Your task to perform on an android device: empty trash in google photos Image 0: 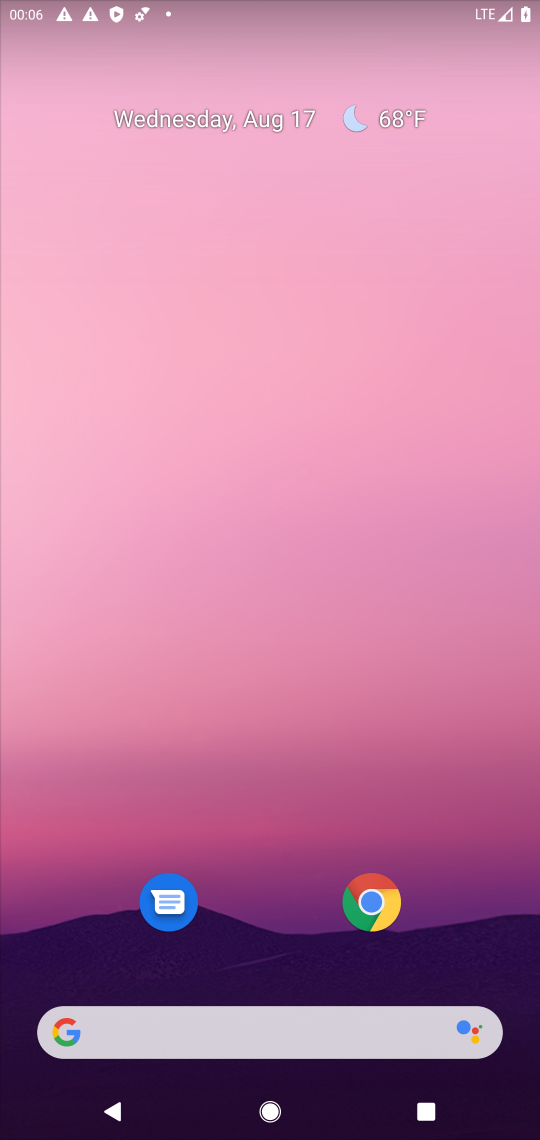
Step 0: drag from (252, 920) to (400, 44)
Your task to perform on an android device: empty trash in google photos Image 1: 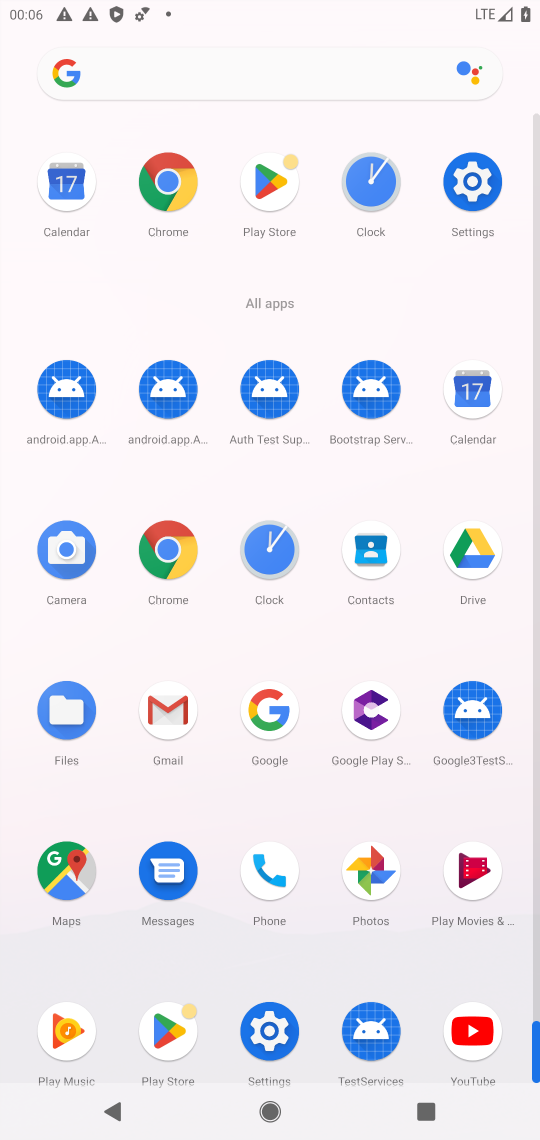
Step 1: click (375, 900)
Your task to perform on an android device: empty trash in google photos Image 2: 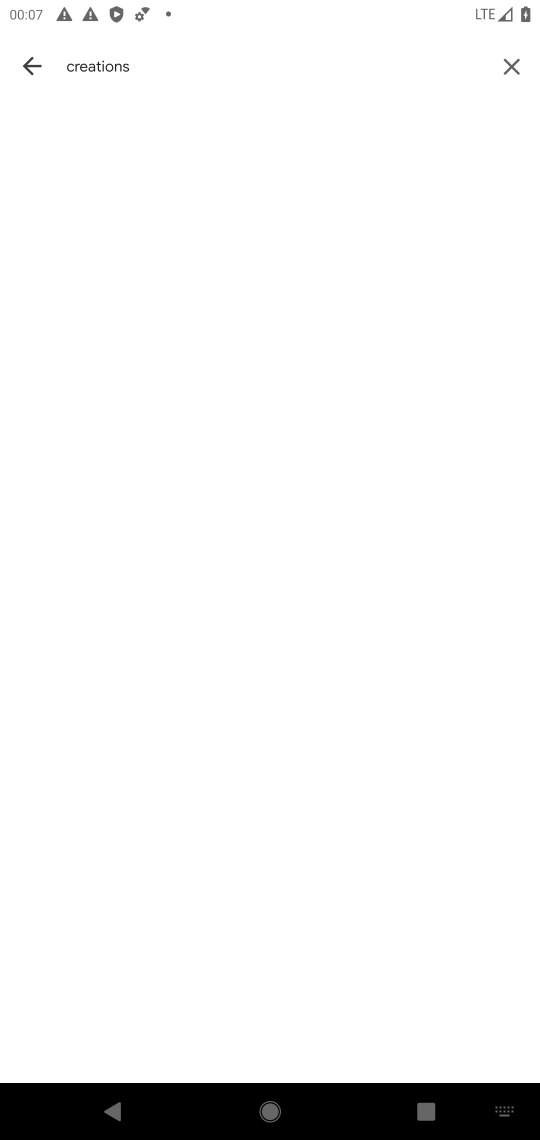
Step 2: click (36, 56)
Your task to perform on an android device: empty trash in google photos Image 3: 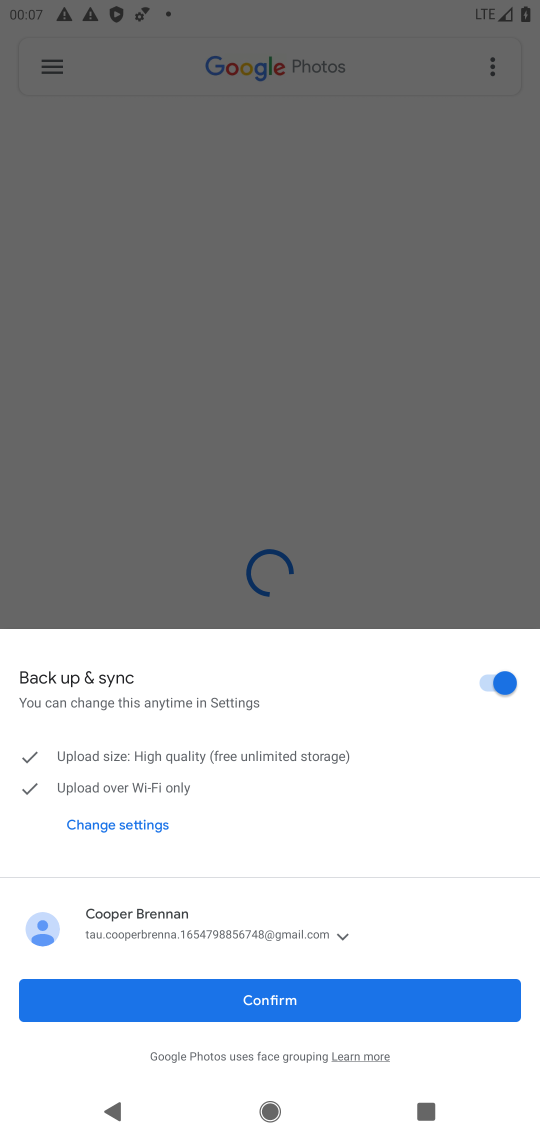
Step 3: click (226, 1005)
Your task to perform on an android device: empty trash in google photos Image 4: 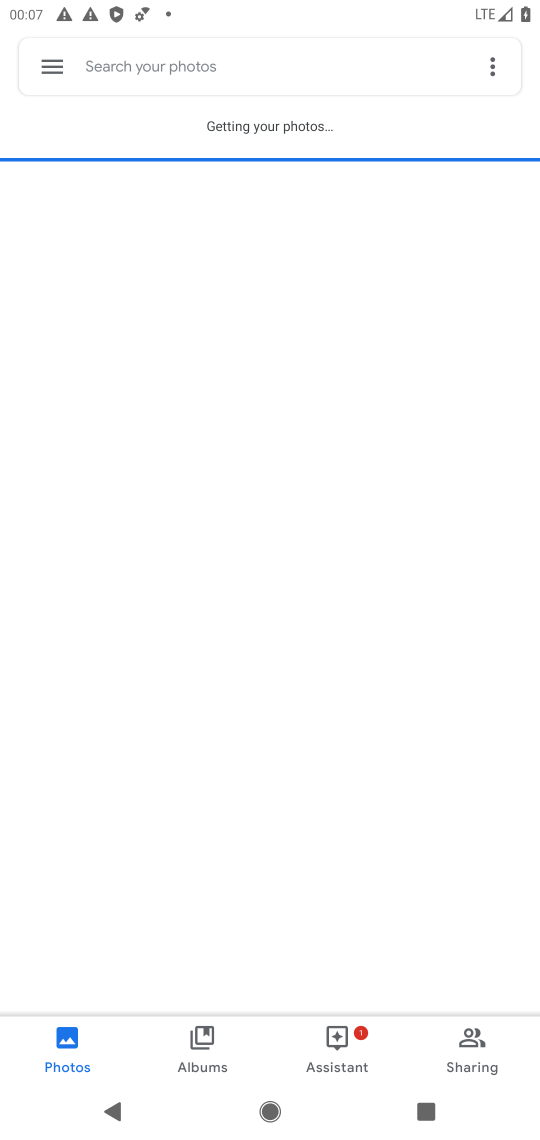
Step 4: click (57, 59)
Your task to perform on an android device: empty trash in google photos Image 5: 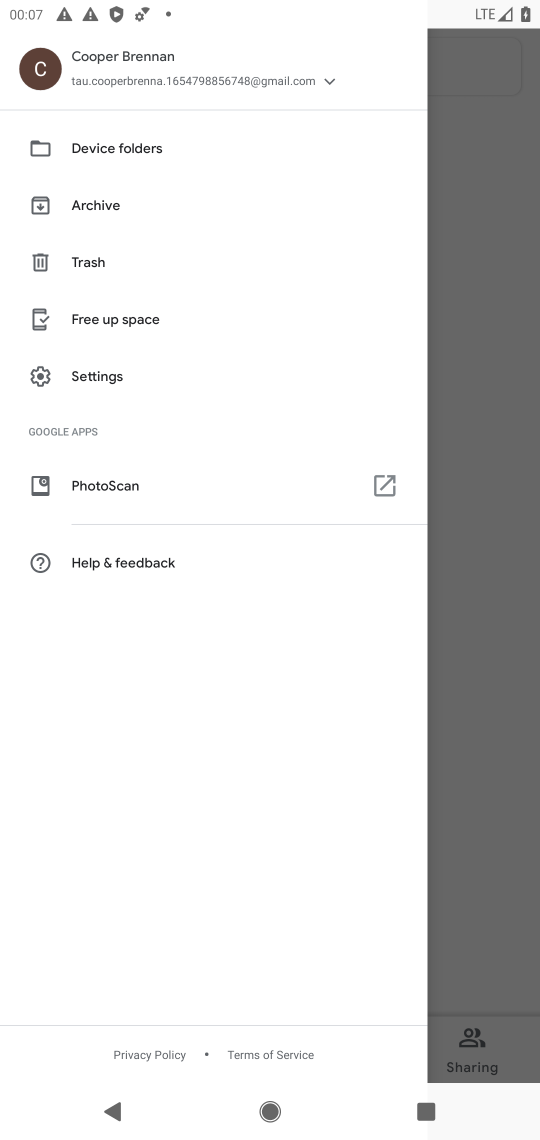
Step 5: click (97, 257)
Your task to perform on an android device: empty trash in google photos Image 6: 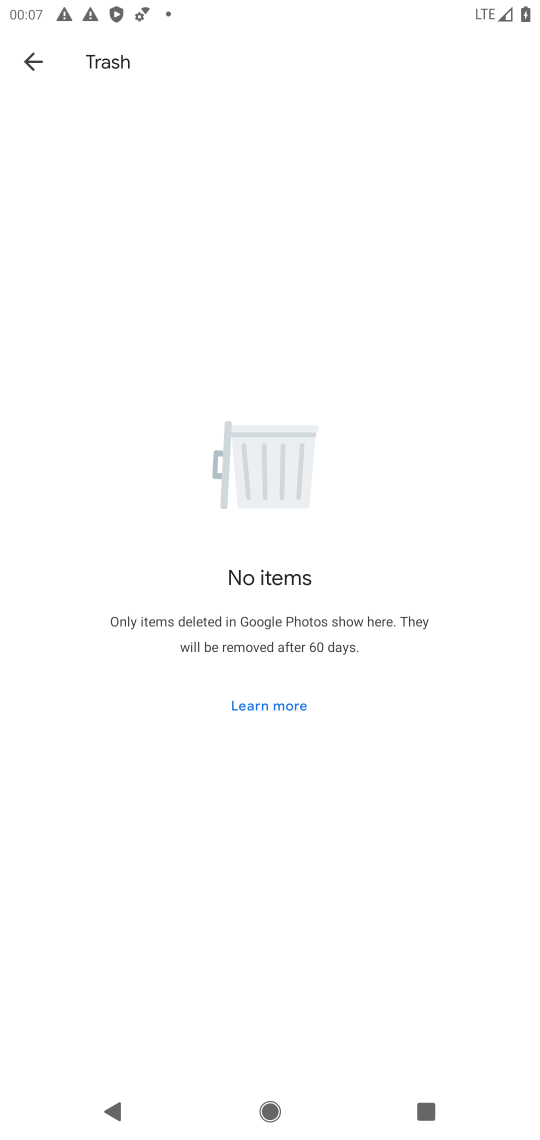
Step 6: task complete